Your task to perform on an android device: Open accessibility settings Image 0: 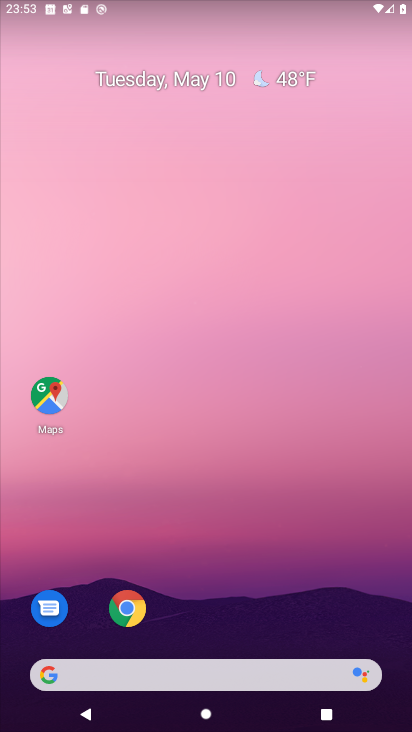
Step 0: drag from (305, 589) to (266, 207)
Your task to perform on an android device: Open accessibility settings Image 1: 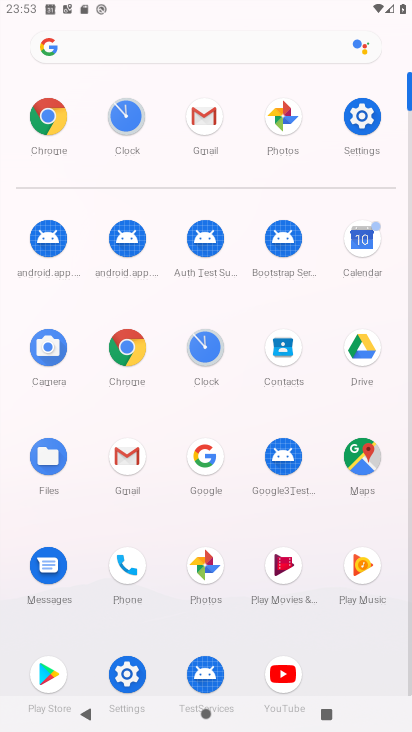
Step 1: click (375, 135)
Your task to perform on an android device: Open accessibility settings Image 2: 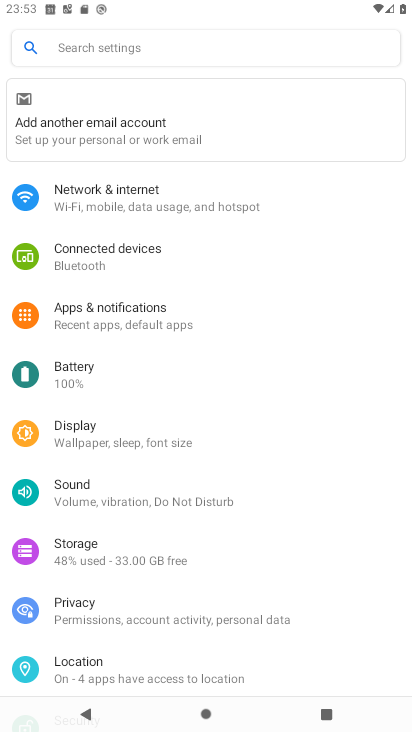
Step 2: drag from (298, 630) to (297, 328)
Your task to perform on an android device: Open accessibility settings Image 3: 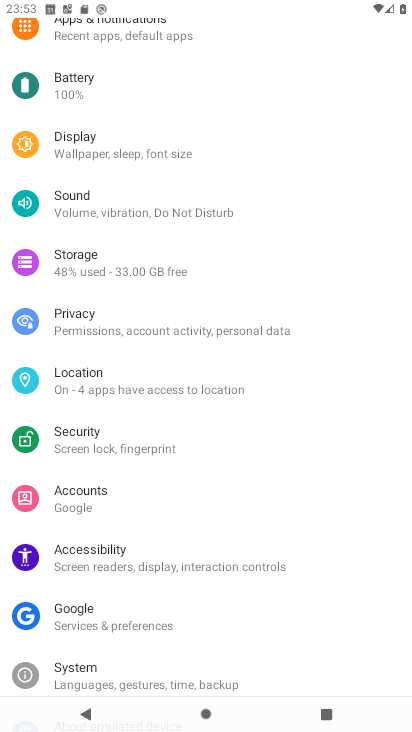
Step 3: click (146, 552)
Your task to perform on an android device: Open accessibility settings Image 4: 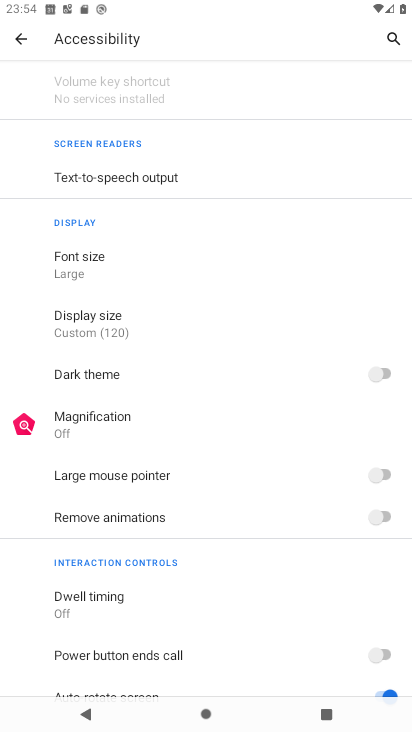
Step 4: task complete